Your task to perform on an android device: open wifi settings Image 0: 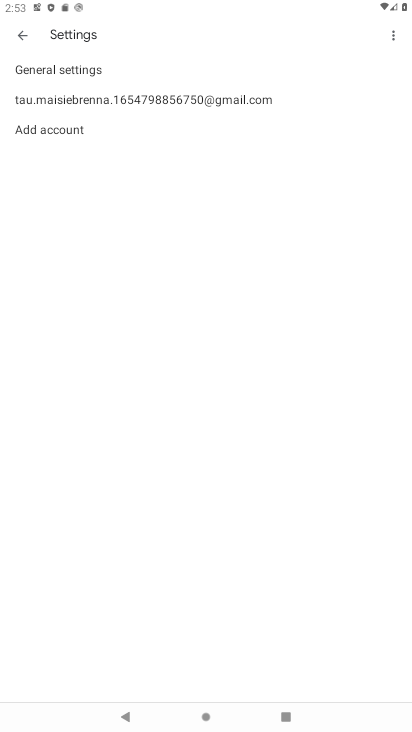
Step 0: press home button
Your task to perform on an android device: open wifi settings Image 1: 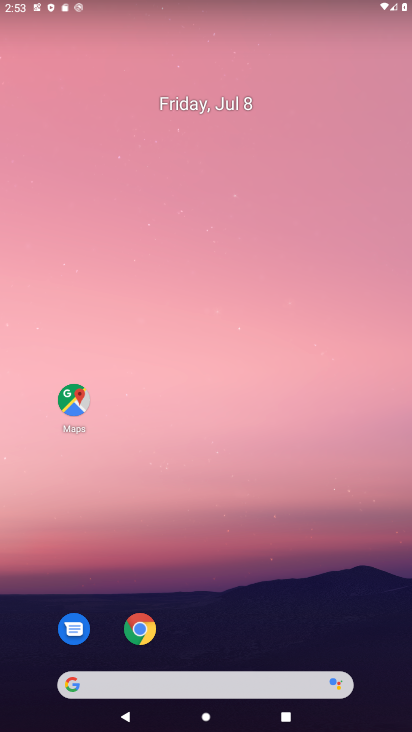
Step 1: drag from (46, 702) to (393, 14)
Your task to perform on an android device: open wifi settings Image 2: 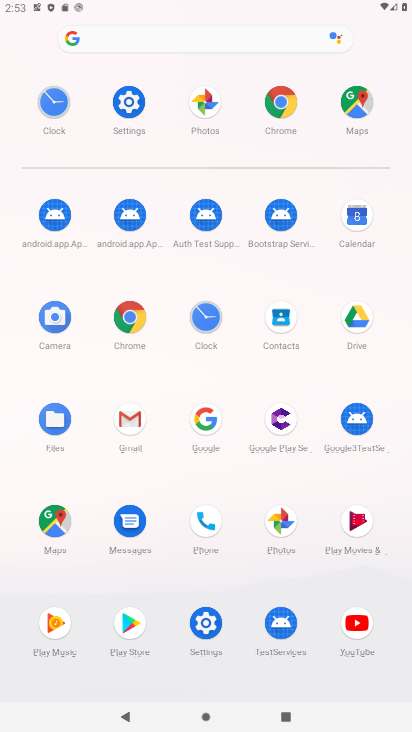
Step 2: click (204, 639)
Your task to perform on an android device: open wifi settings Image 3: 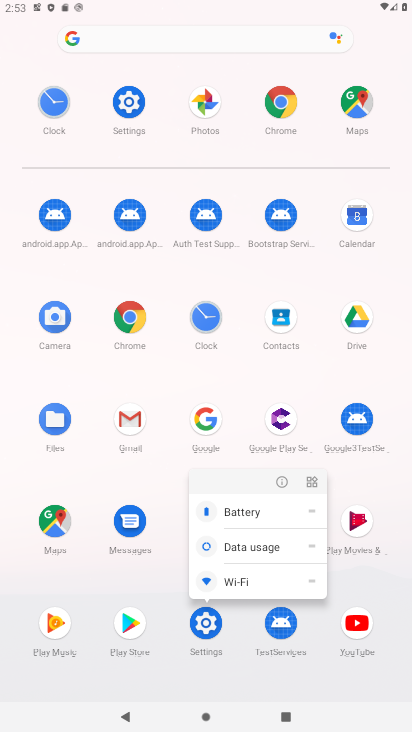
Step 3: click (209, 630)
Your task to perform on an android device: open wifi settings Image 4: 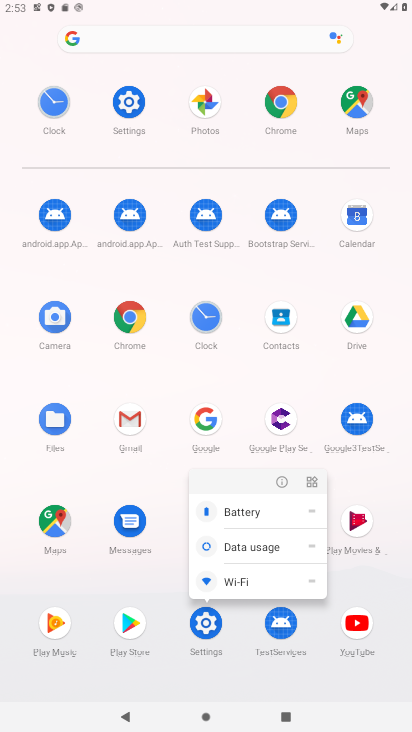
Step 4: click (205, 617)
Your task to perform on an android device: open wifi settings Image 5: 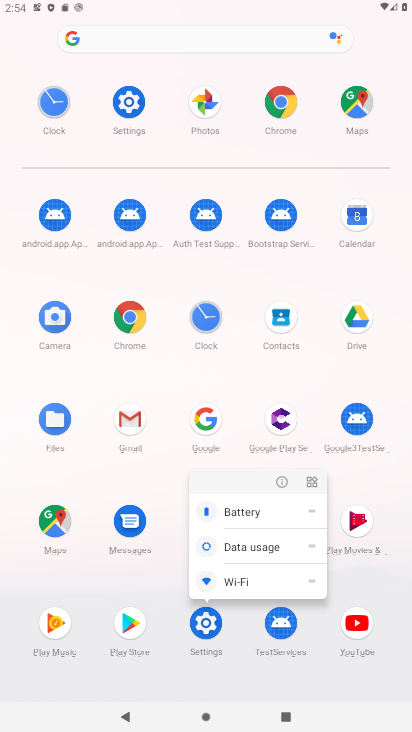
Step 5: click (222, 635)
Your task to perform on an android device: open wifi settings Image 6: 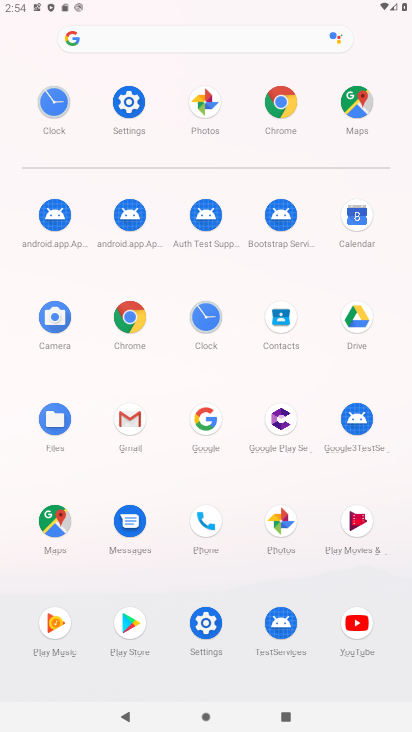
Step 6: task complete